Your task to perform on an android device: remove spam from my inbox in the gmail app Image 0: 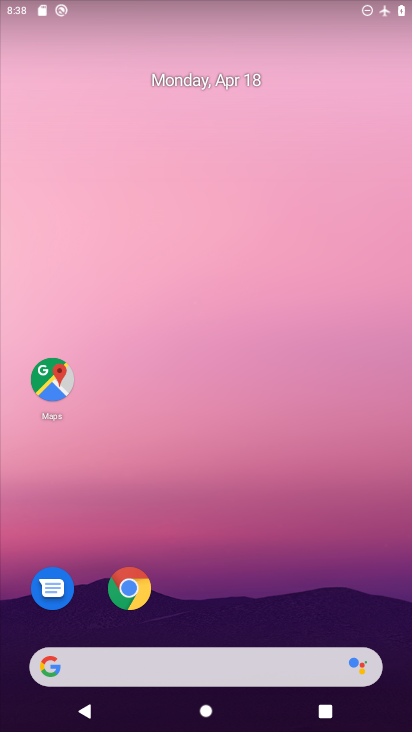
Step 0: drag from (222, 588) to (210, 70)
Your task to perform on an android device: remove spam from my inbox in the gmail app Image 1: 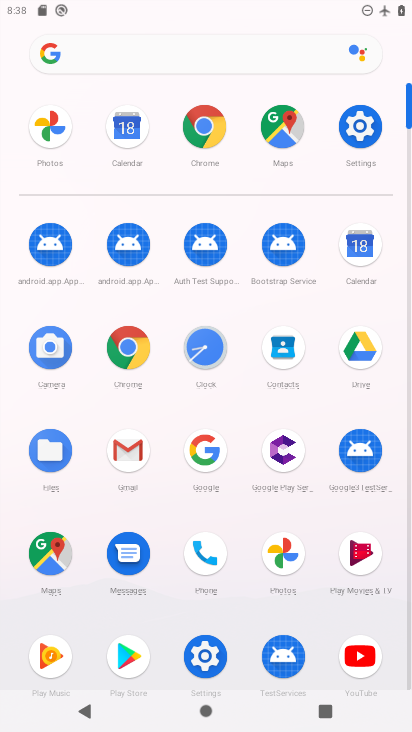
Step 1: click (135, 448)
Your task to perform on an android device: remove spam from my inbox in the gmail app Image 2: 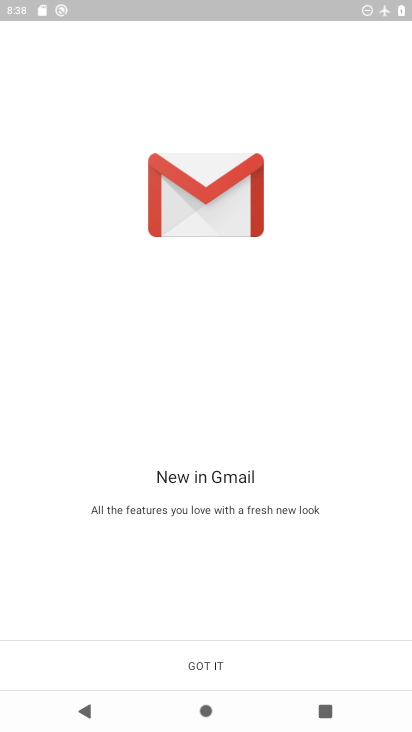
Step 2: click (202, 657)
Your task to perform on an android device: remove spam from my inbox in the gmail app Image 3: 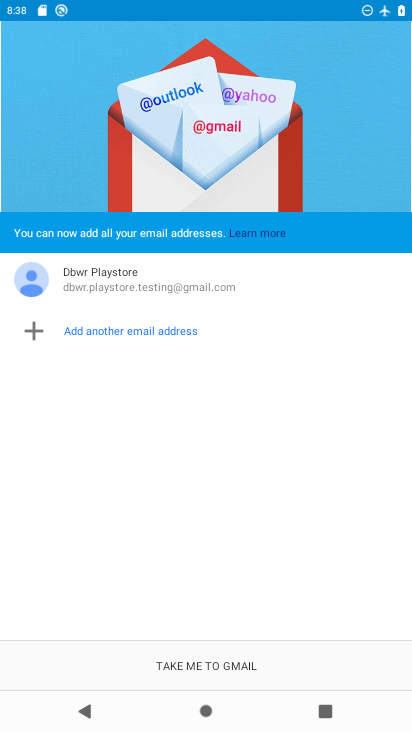
Step 3: click (205, 657)
Your task to perform on an android device: remove spam from my inbox in the gmail app Image 4: 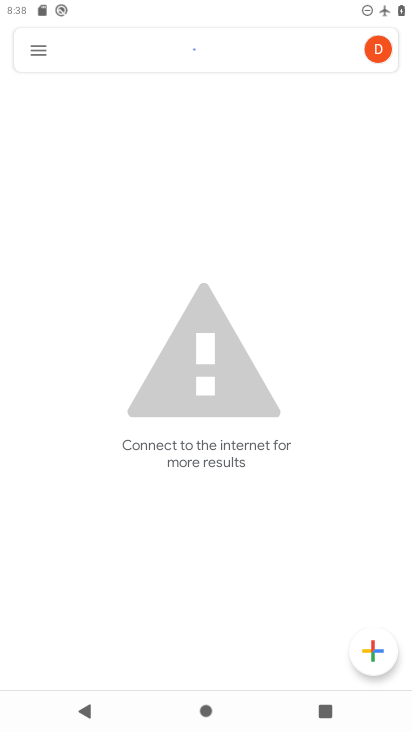
Step 4: click (37, 52)
Your task to perform on an android device: remove spam from my inbox in the gmail app Image 5: 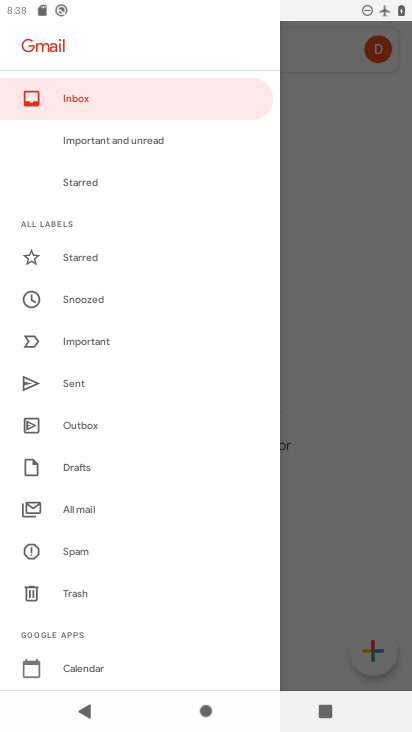
Step 5: click (89, 98)
Your task to perform on an android device: remove spam from my inbox in the gmail app Image 6: 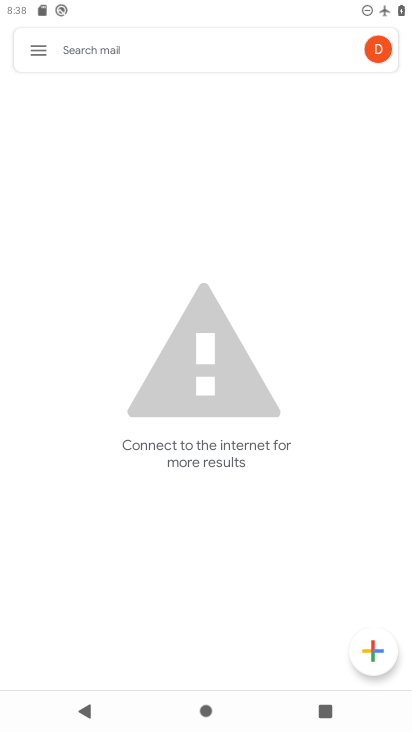
Step 6: task complete